Your task to perform on an android device: open sync settings in chrome Image 0: 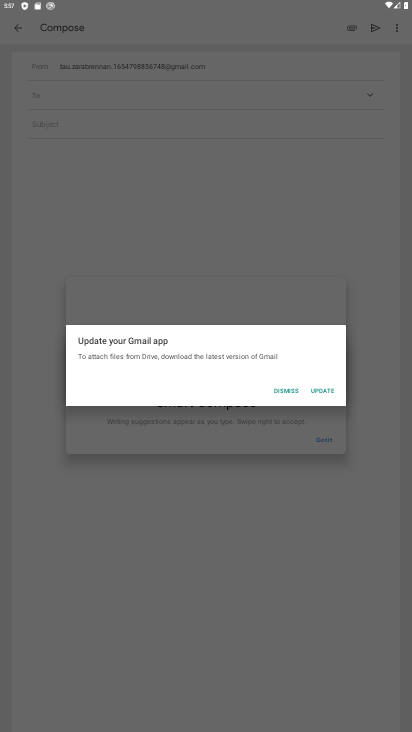
Step 0: press home button
Your task to perform on an android device: open sync settings in chrome Image 1: 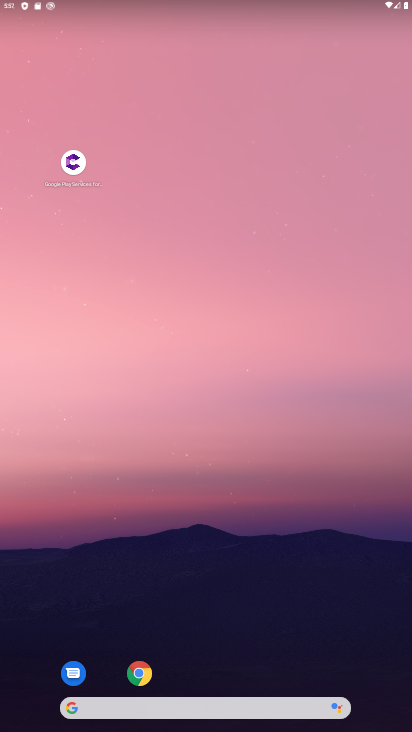
Step 1: drag from (273, 639) to (291, 576)
Your task to perform on an android device: open sync settings in chrome Image 2: 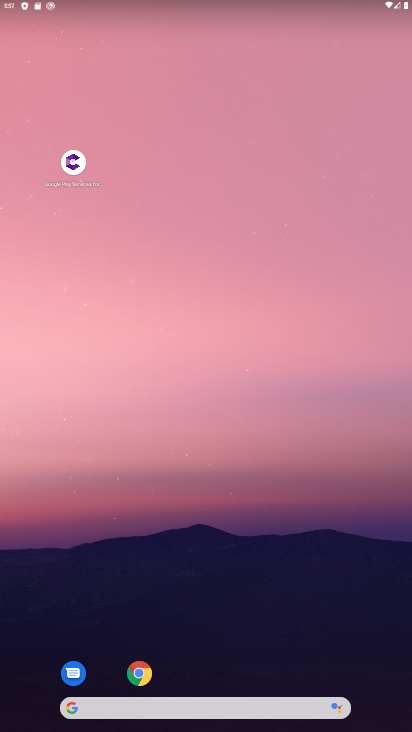
Step 2: click (127, 674)
Your task to perform on an android device: open sync settings in chrome Image 3: 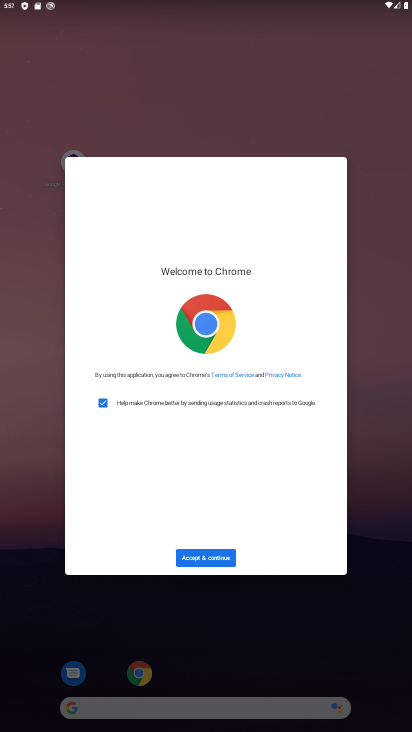
Step 3: click (204, 567)
Your task to perform on an android device: open sync settings in chrome Image 4: 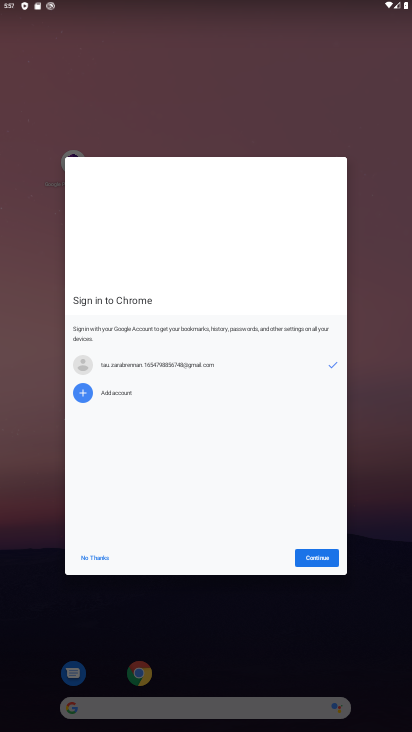
Step 4: click (337, 559)
Your task to perform on an android device: open sync settings in chrome Image 5: 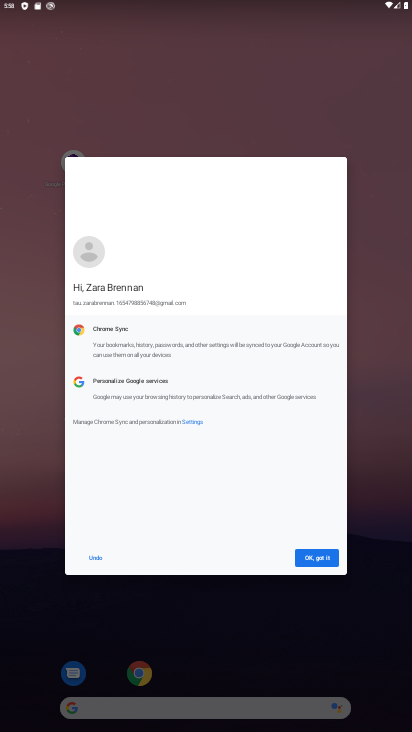
Step 5: click (335, 559)
Your task to perform on an android device: open sync settings in chrome Image 6: 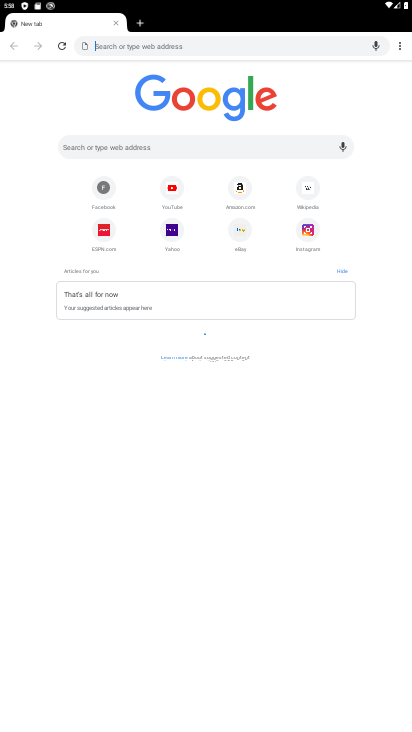
Step 6: drag from (400, 44) to (304, 206)
Your task to perform on an android device: open sync settings in chrome Image 7: 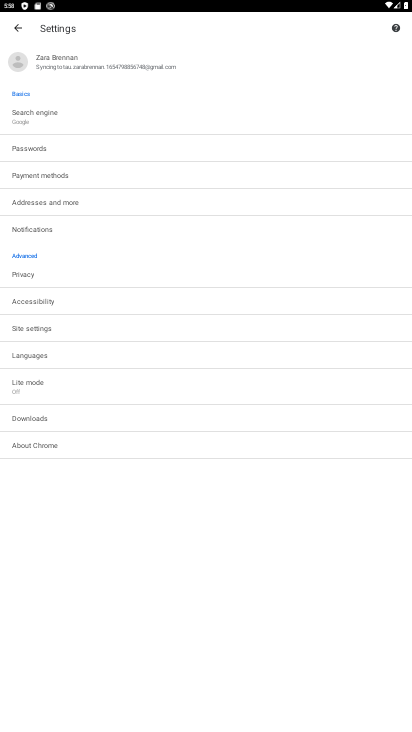
Step 7: click (102, 77)
Your task to perform on an android device: open sync settings in chrome Image 8: 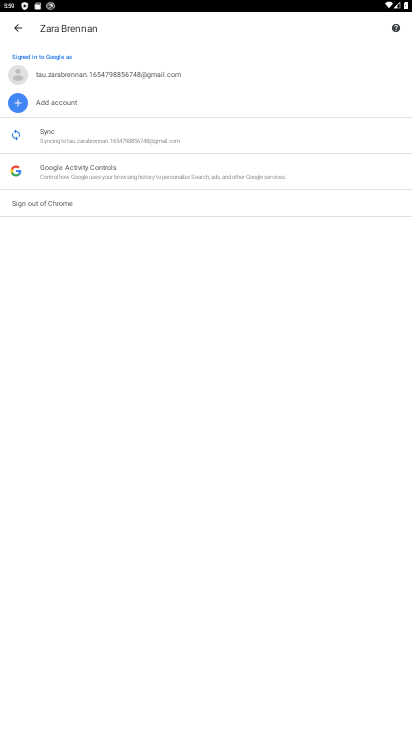
Step 8: click (64, 136)
Your task to perform on an android device: open sync settings in chrome Image 9: 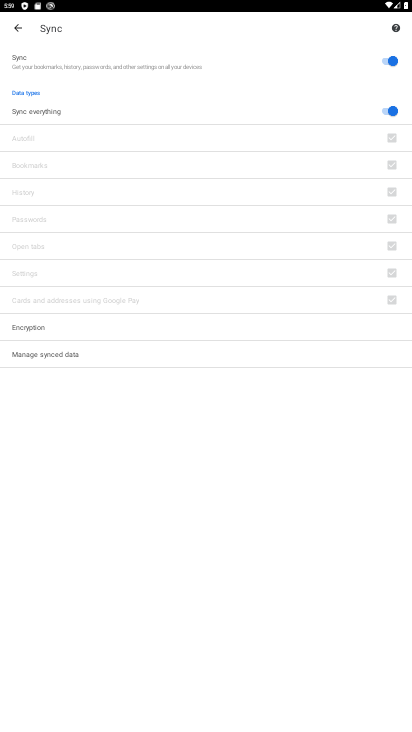
Step 9: task complete